Your task to perform on an android device: Open Chrome and go to settings Image 0: 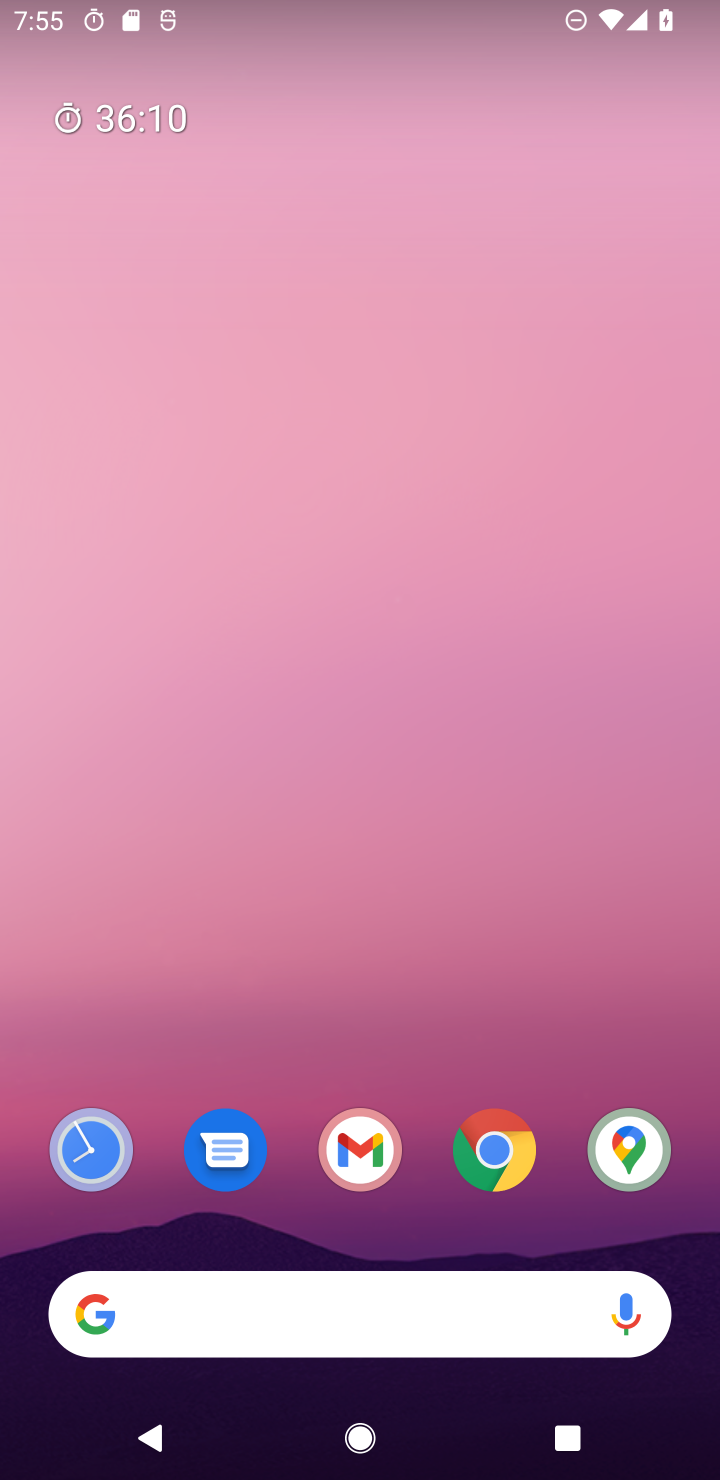
Step 0: drag from (508, 1203) to (582, 9)
Your task to perform on an android device: Open Chrome and go to settings Image 1: 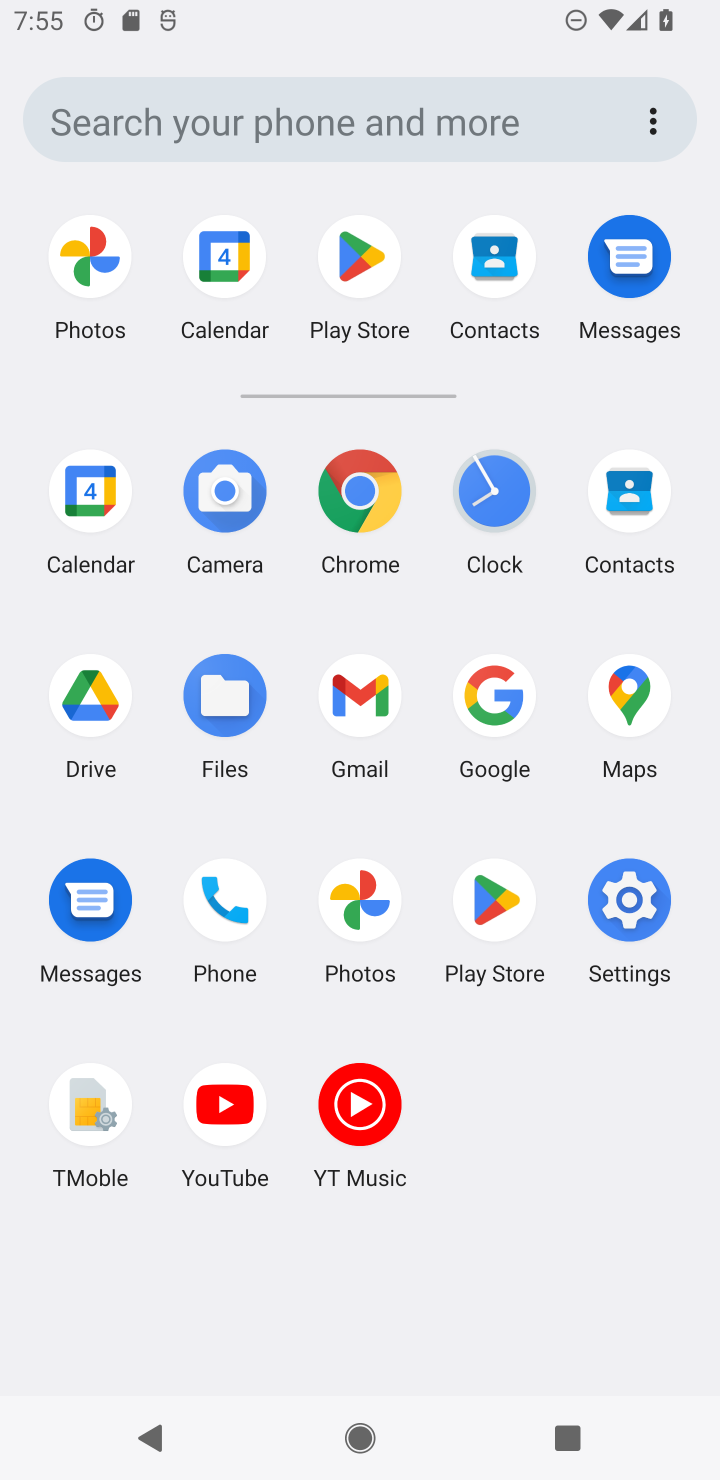
Step 1: click (355, 486)
Your task to perform on an android device: Open Chrome and go to settings Image 2: 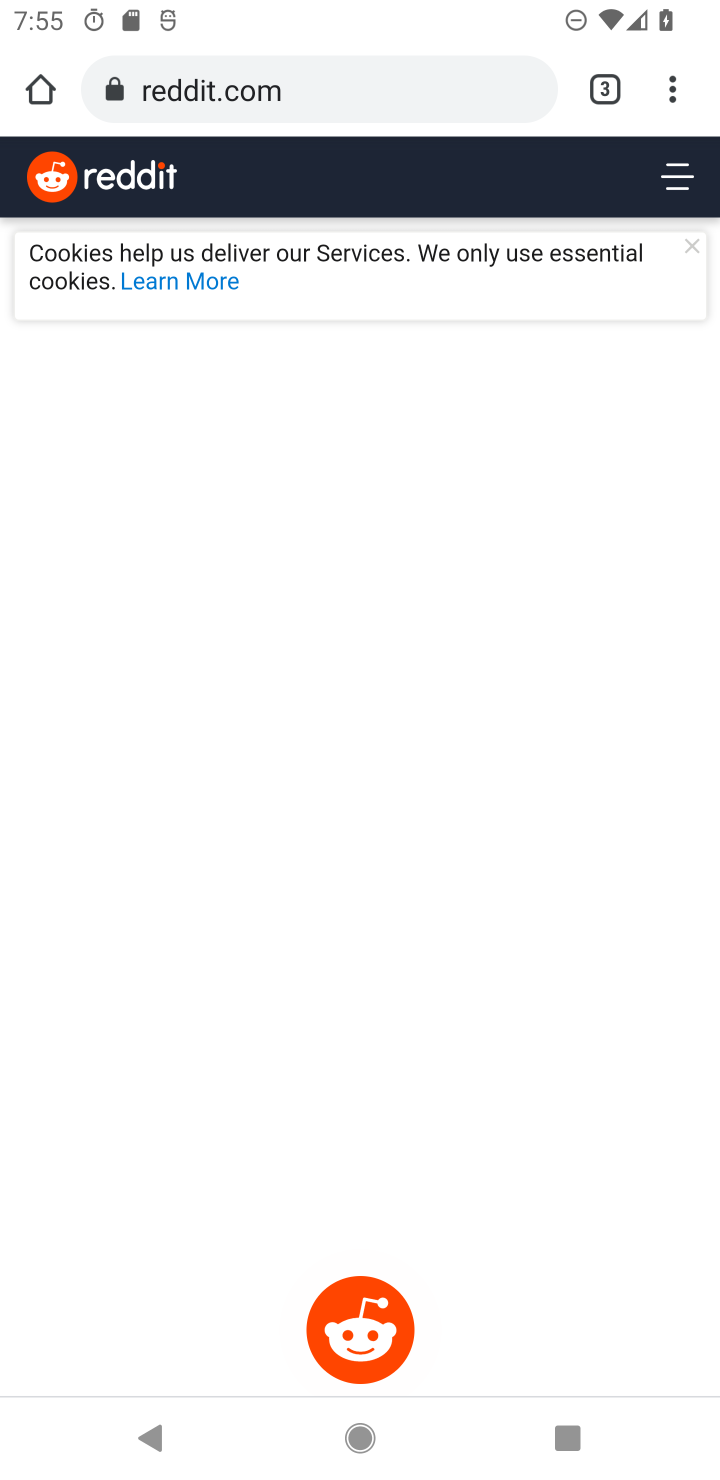
Step 2: click (666, 100)
Your task to perform on an android device: Open Chrome and go to settings Image 3: 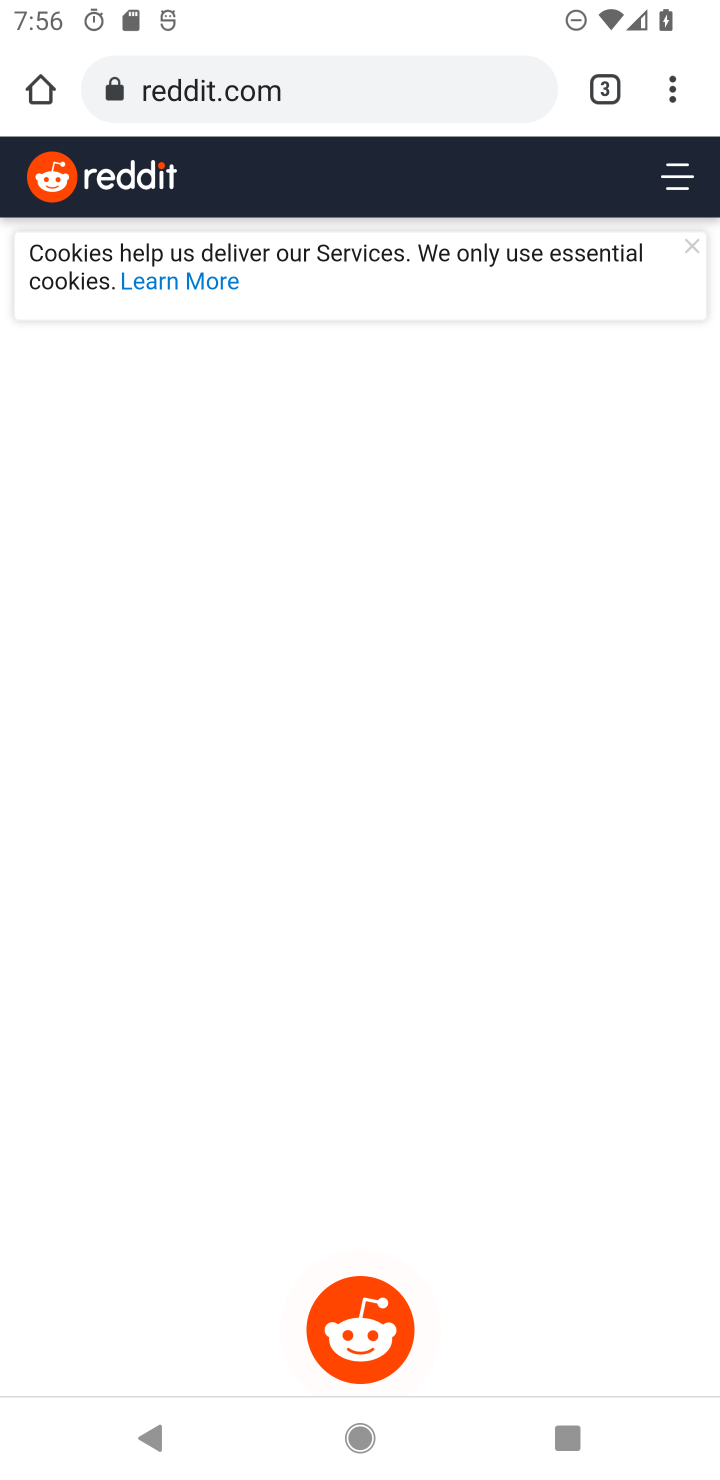
Step 3: click (664, 73)
Your task to perform on an android device: Open Chrome and go to settings Image 4: 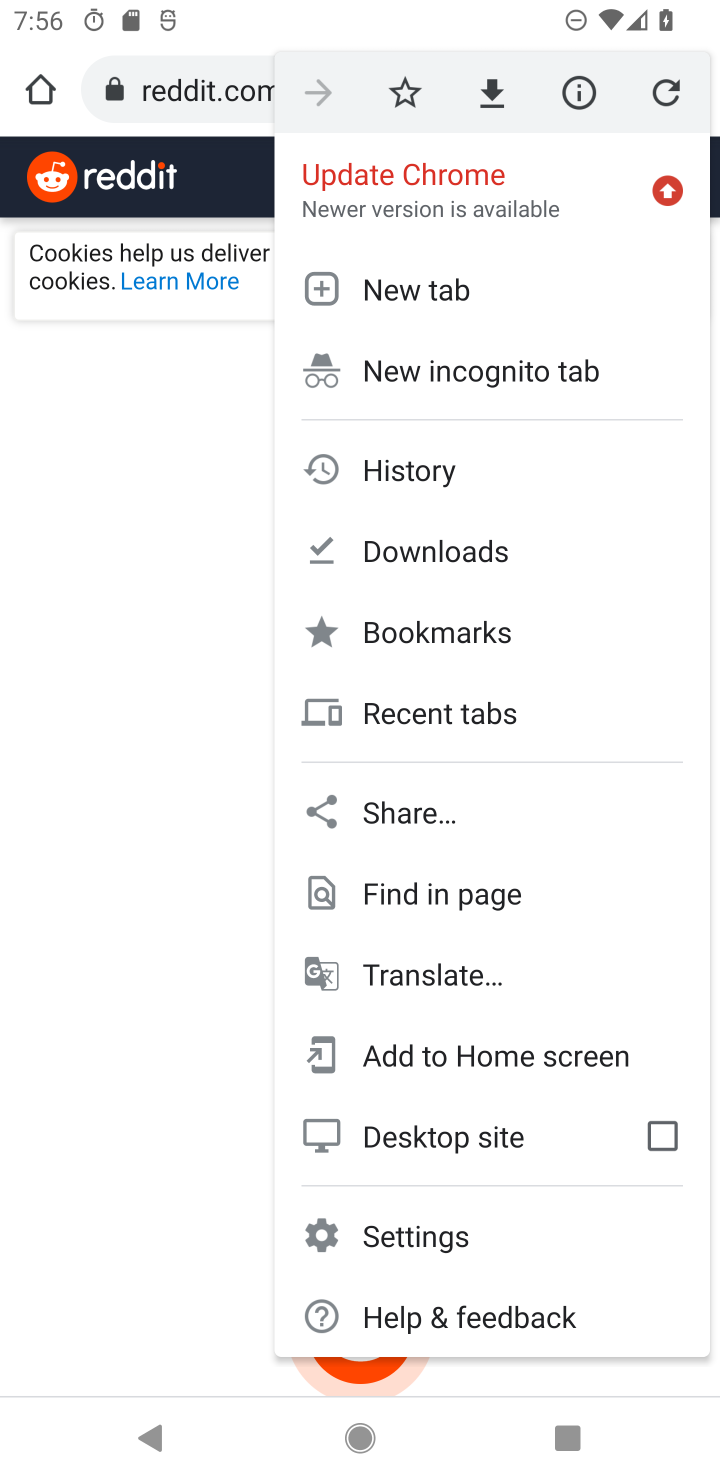
Step 4: click (457, 1245)
Your task to perform on an android device: Open Chrome and go to settings Image 5: 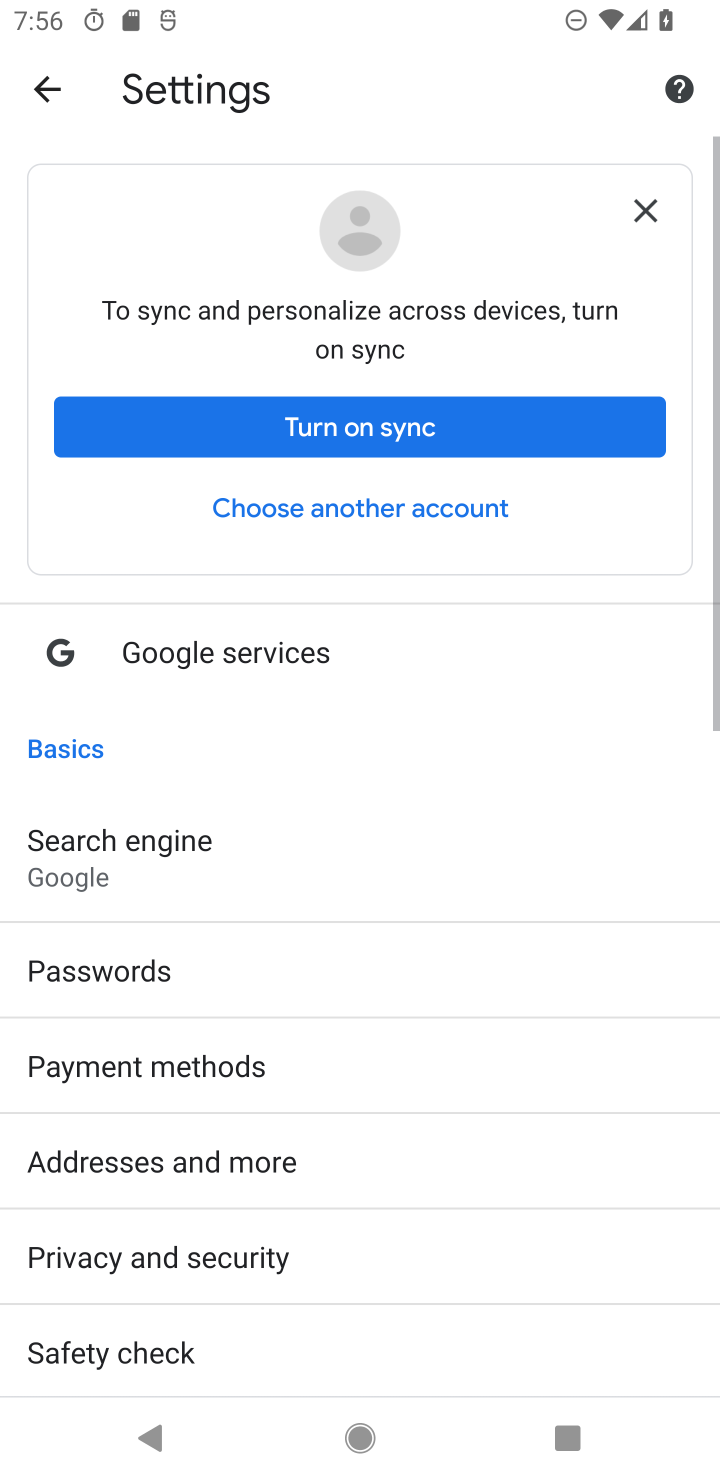
Step 5: task complete